Your task to perform on an android device: What's the weather going to be this weekend? Image 0: 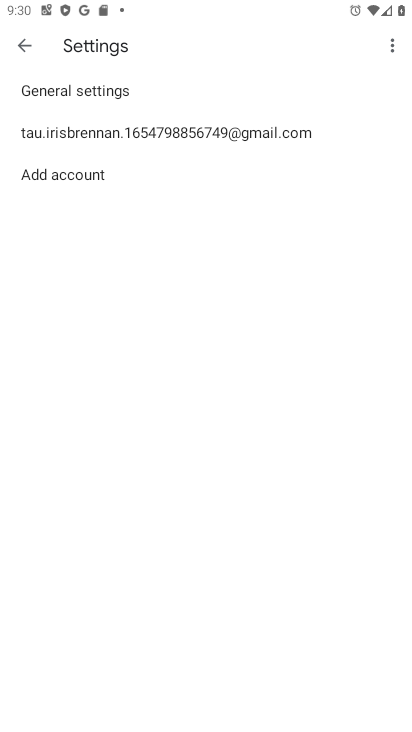
Step 0: press home button
Your task to perform on an android device: What's the weather going to be this weekend? Image 1: 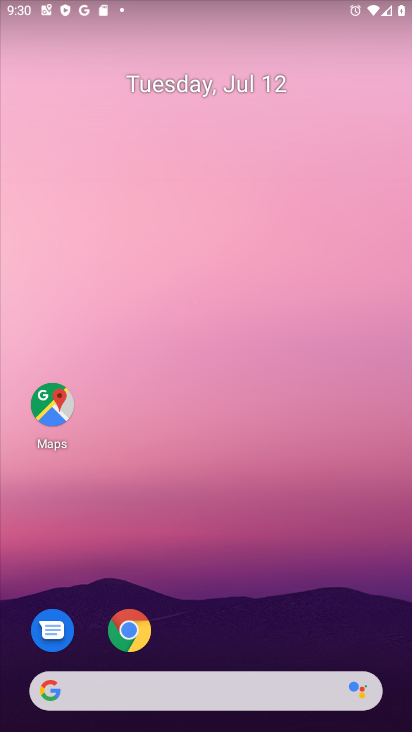
Step 1: drag from (237, 613) to (216, 134)
Your task to perform on an android device: What's the weather going to be this weekend? Image 2: 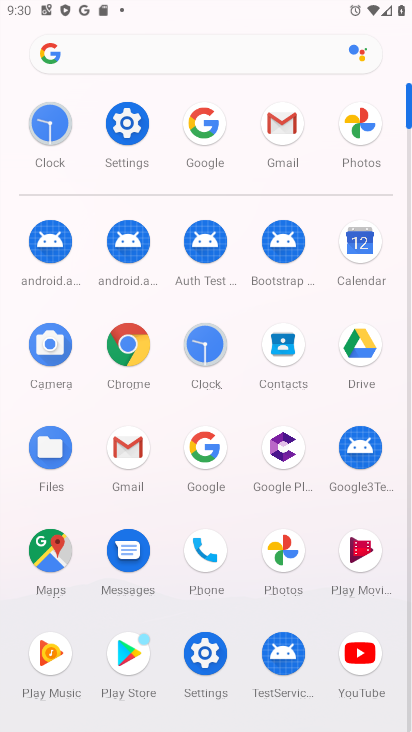
Step 2: click (203, 117)
Your task to perform on an android device: What's the weather going to be this weekend? Image 3: 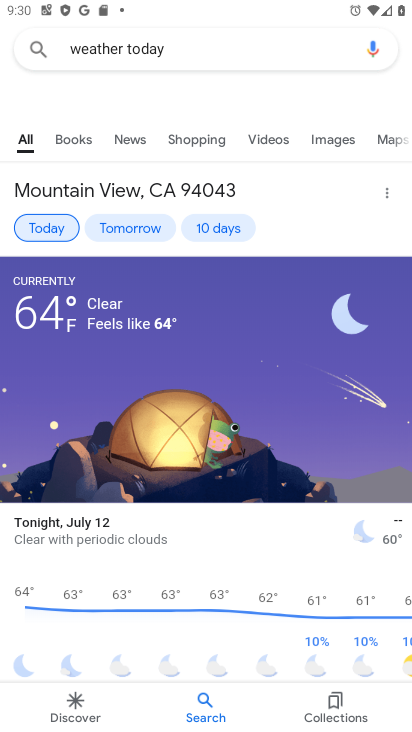
Step 3: click (213, 49)
Your task to perform on an android device: What's the weather going to be this weekend? Image 4: 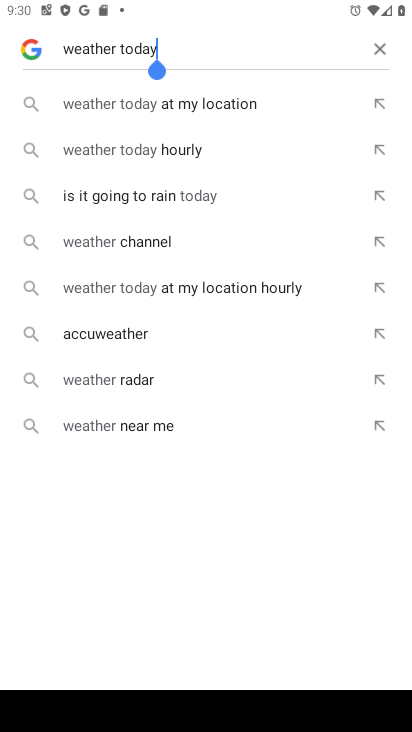
Step 4: click (369, 45)
Your task to perform on an android device: What's the weather going to be this weekend? Image 5: 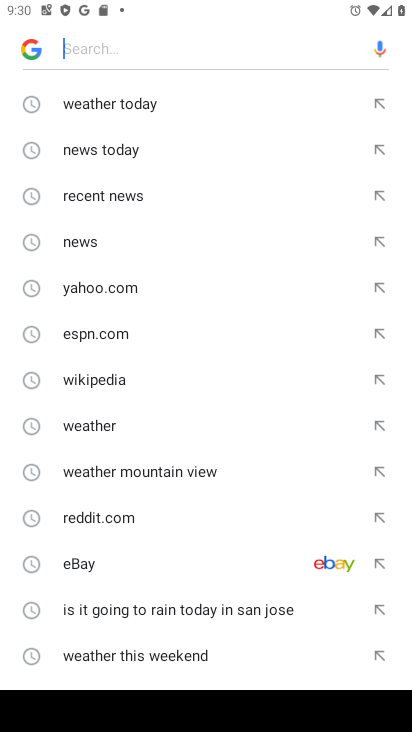
Step 5: drag from (214, 551) to (212, 306)
Your task to perform on an android device: What's the weather going to be this weekend? Image 6: 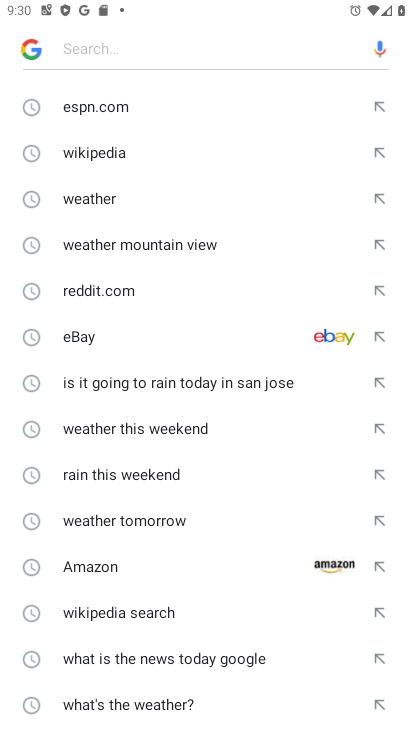
Step 6: click (149, 422)
Your task to perform on an android device: What's the weather going to be this weekend? Image 7: 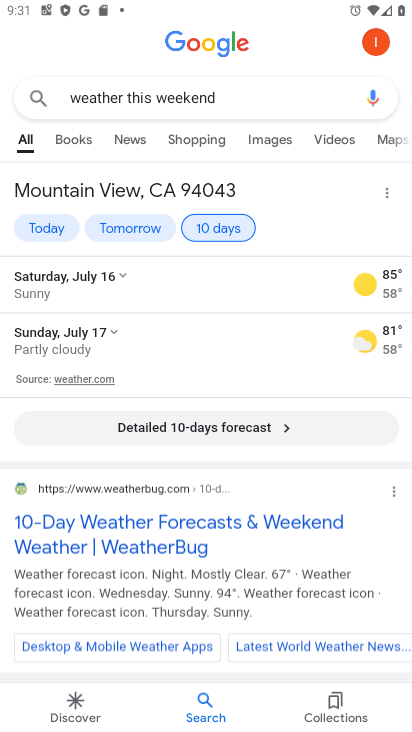
Step 7: task complete